Your task to perform on an android device: Install the Instagram app Image 0: 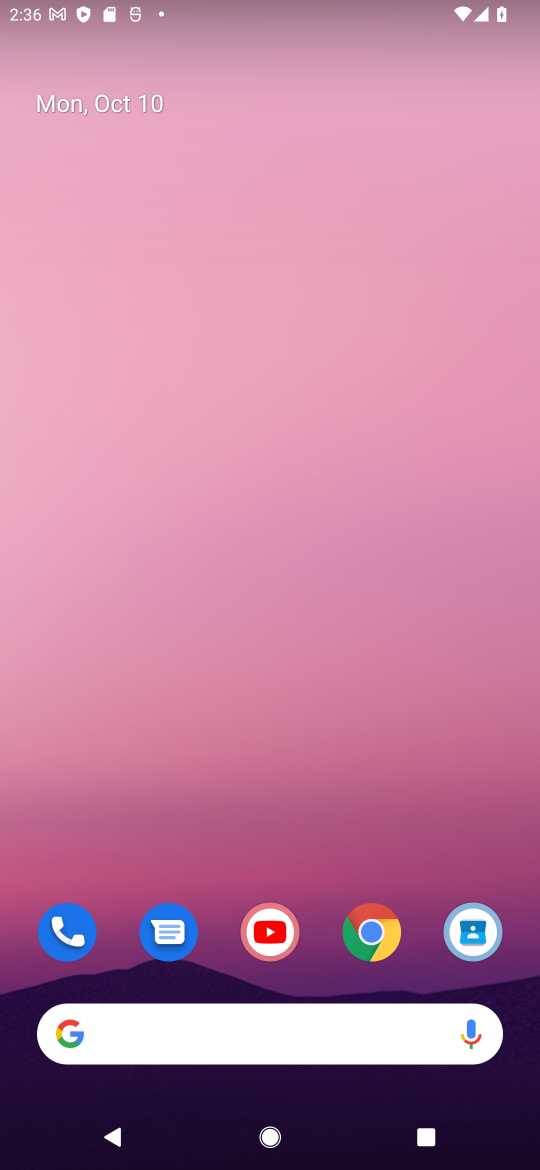
Step 0: press home button
Your task to perform on an android device: Install the Instagram app Image 1: 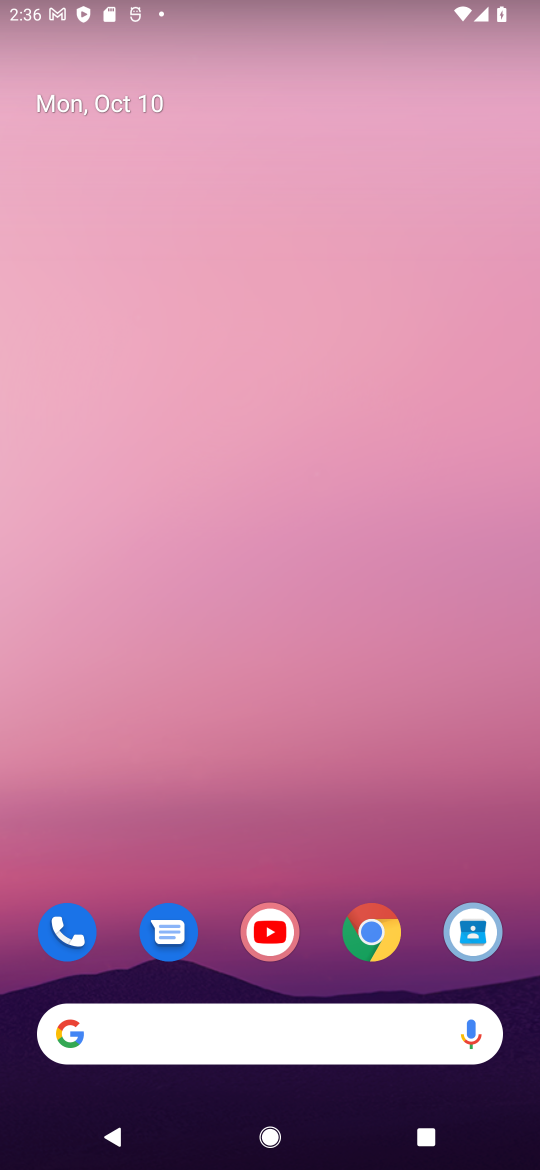
Step 1: drag from (511, 852) to (504, 111)
Your task to perform on an android device: Install the Instagram app Image 2: 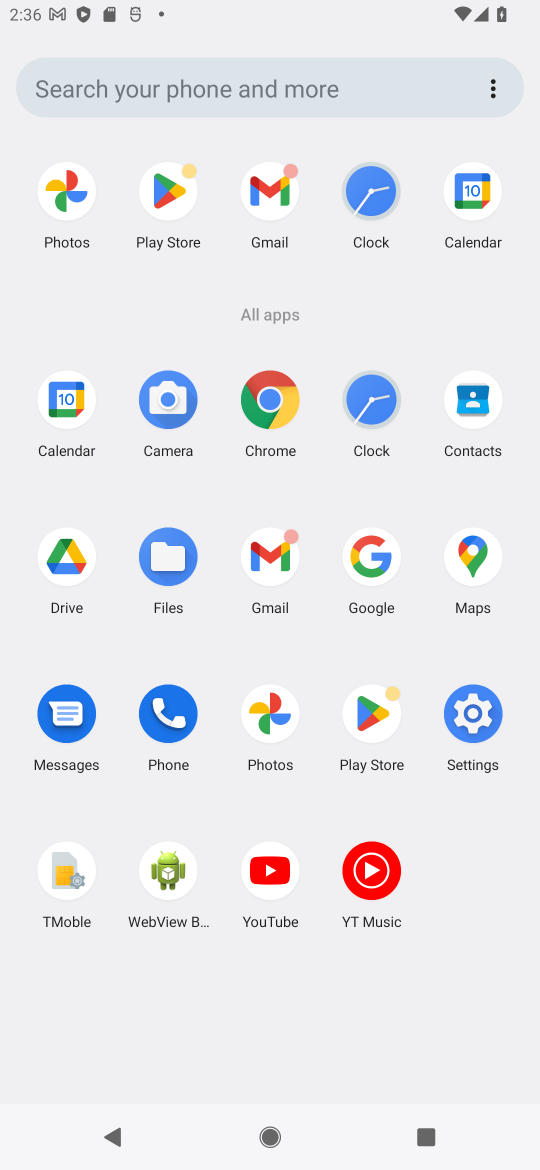
Step 2: click (357, 734)
Your task to perform on an android device: Install the Instagram app Image 3: 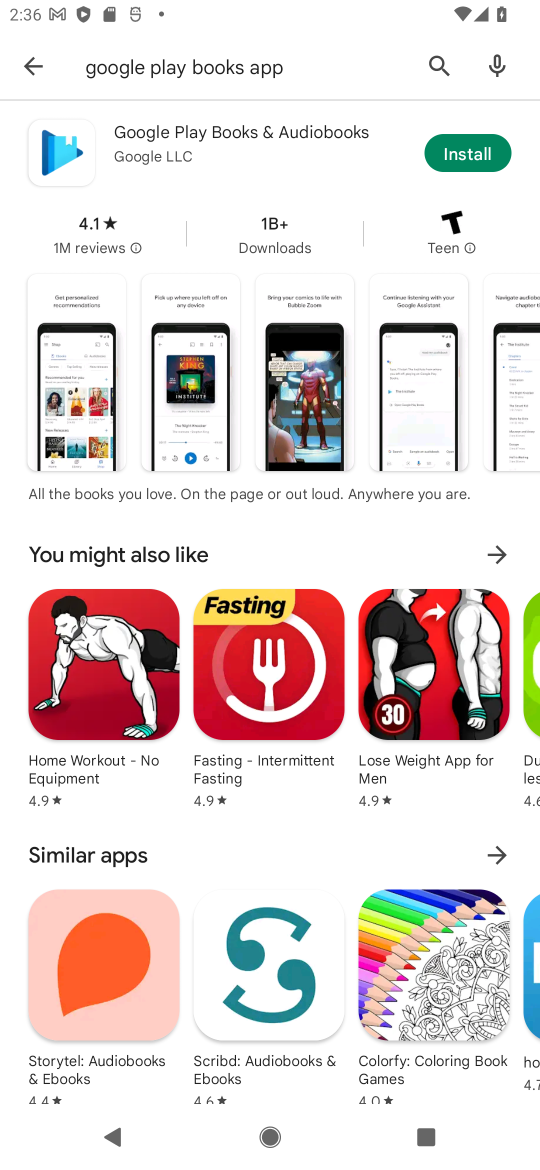
Step 3: click (428, 58)
Your task to perform on an android device: Install the Instagram app Image 4: 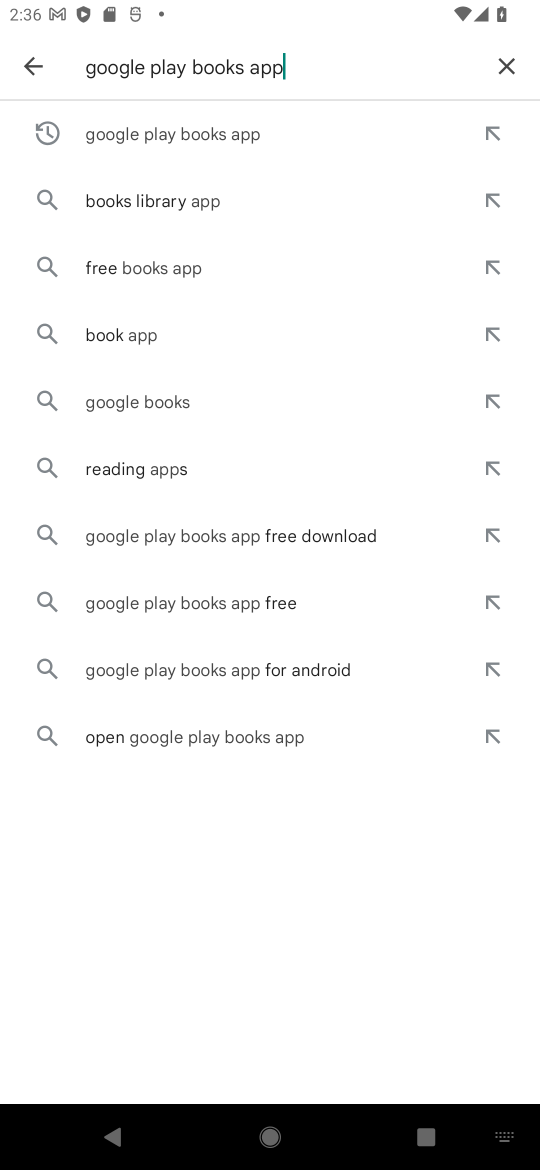
Step 4: click (500, 68)
Your task to perform on an android device: Install the Instagram app Image 5: 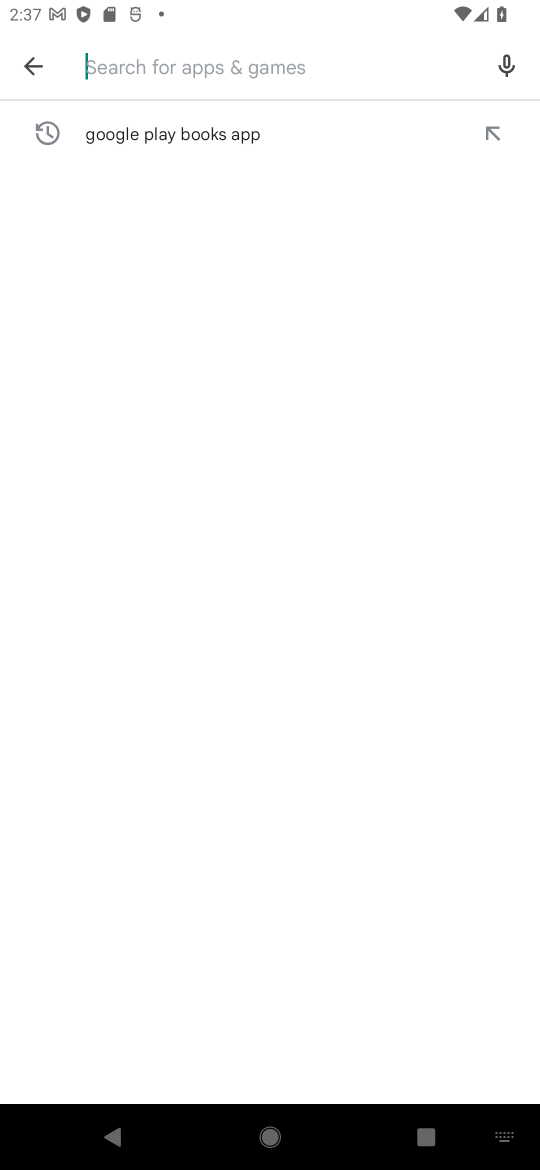
Step 5: press enter
Your task to perform on an android device: Install the Instagram app Image 6: 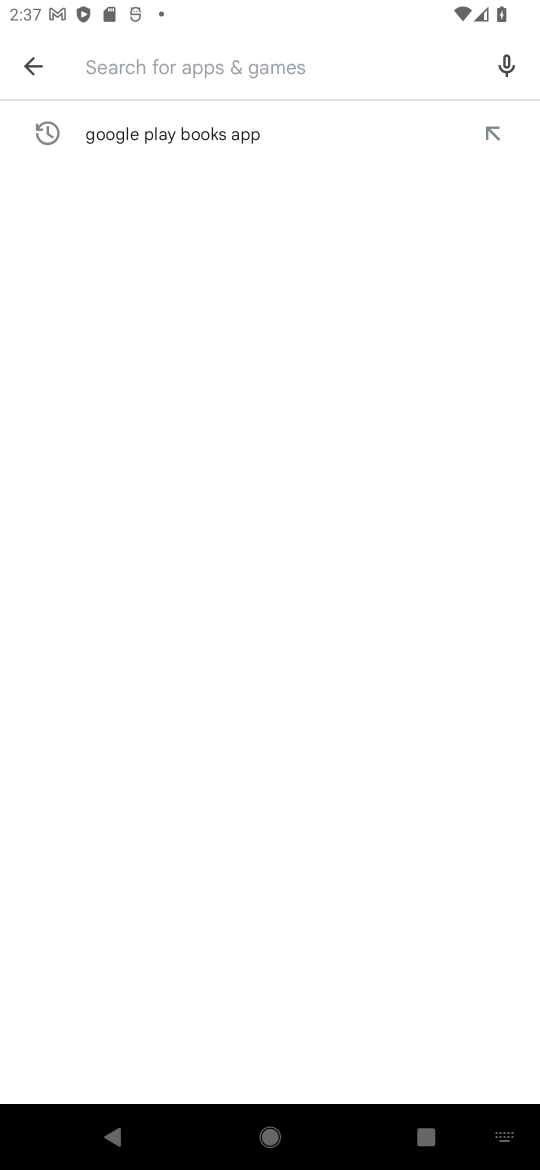
Step 6: type "instagram app"
Your task to perform on an android device: Install the Instagram app Image 7: 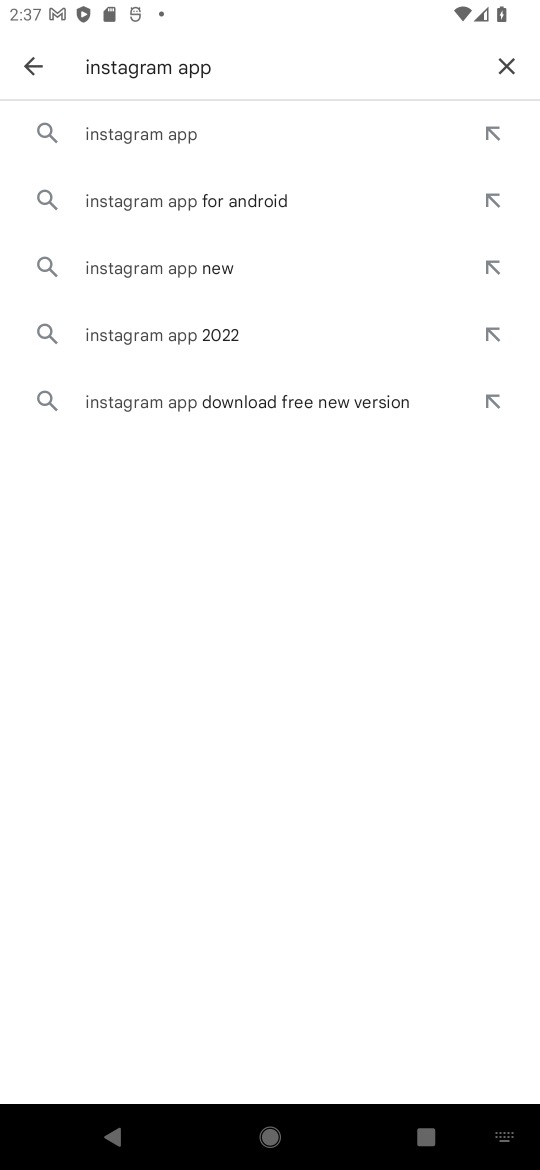
Step 7: click (203, 151)
Your task to perform on an android device: Install the Instagram app Image 8: 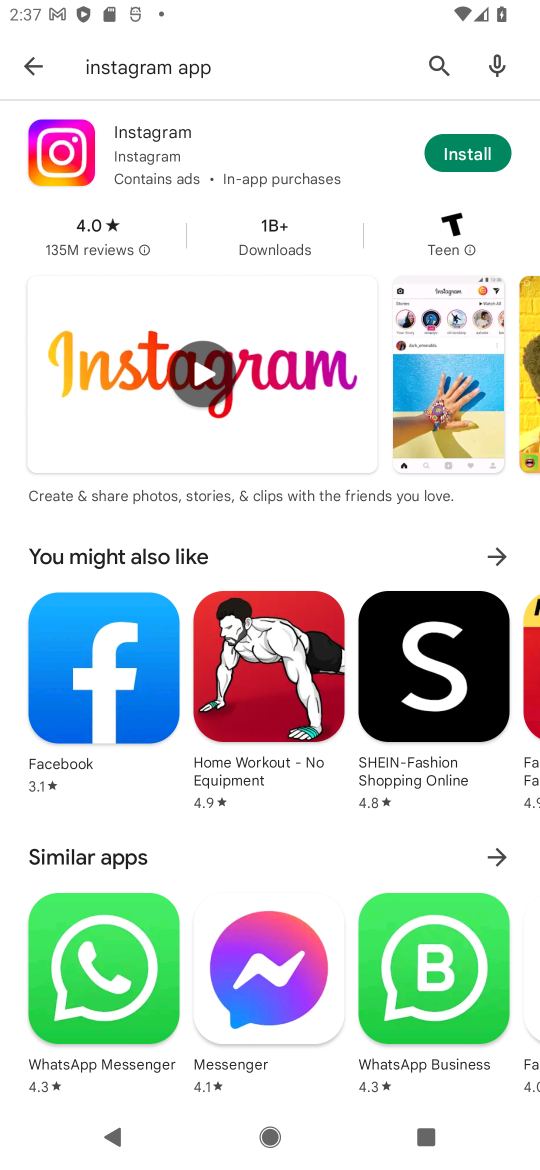
Step 8: click (464, 154)
Your task to perform on an android device: Install the Instagram app Image 9: 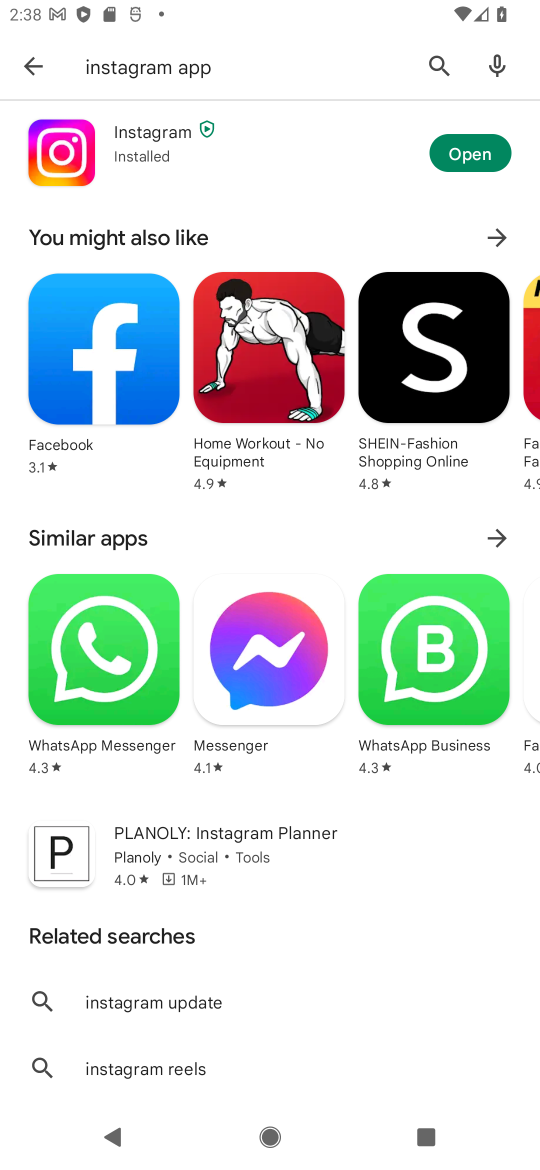
Step 9: task complete